Your task to perform on an android device: turn on priority inbox in the gmail app Image 0: 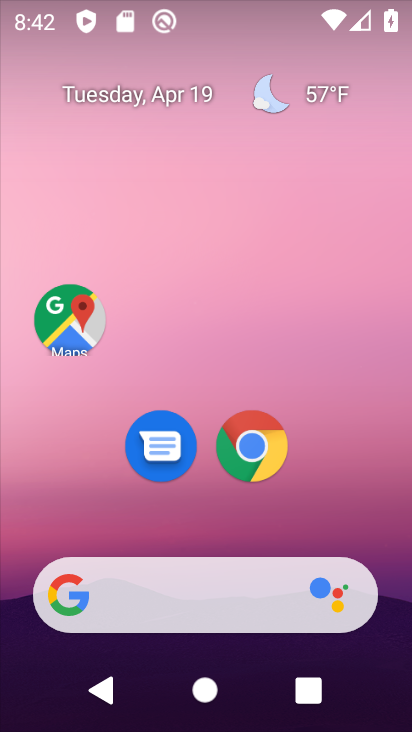
Step 0: drag from (329, 515) to (289, 91)
Your task to perform on an android device: turn on priority inbox in the gmail app Image 1: 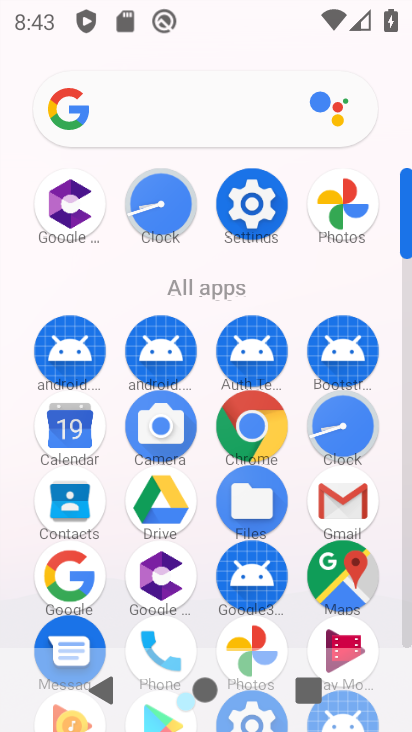
Step 1: click (349, 508)
Your task to perform on an android device: turn on priority inbox in the gmail app Image 2: 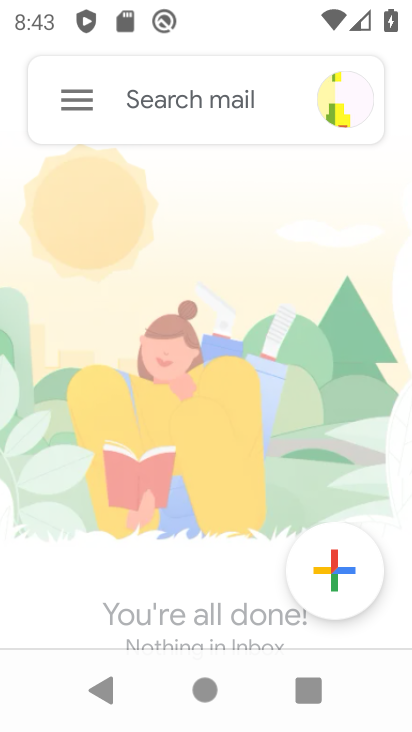
Step 2: click (74, 100)
Your task to perform on an android device: turn on priority inbox in the gmail app Image 3: 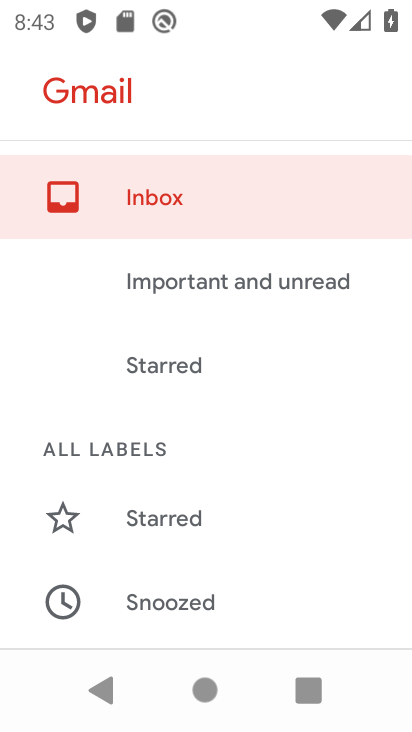
Step 3: drag from (151, 585) to (159, 204)
Your task to perform on an android device: turn on priority inbox in the gmail app Image 4: 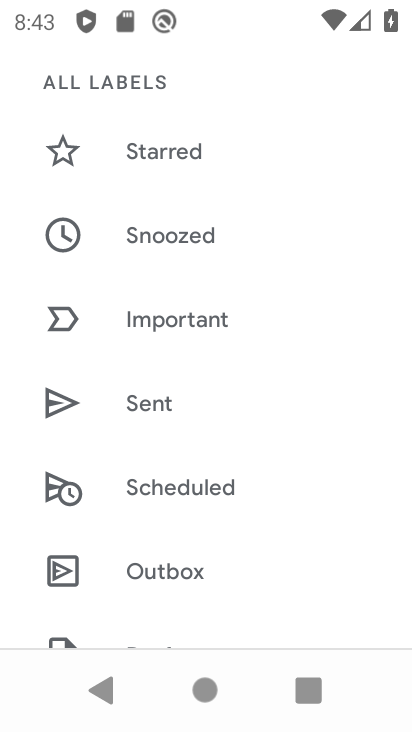
Step 4: drag from (116, 579) to (150, 193)
Your task to perform on an android device: turn on priority inbox in the gmail app Image 5: 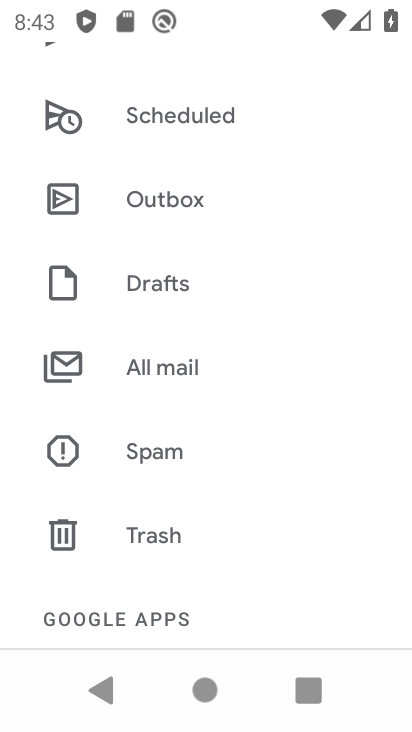
Step 5: drag from (252, 598) to (272, 149)
Your task to perform on an android device: turn on priority inbox in the gmail app Image 6: 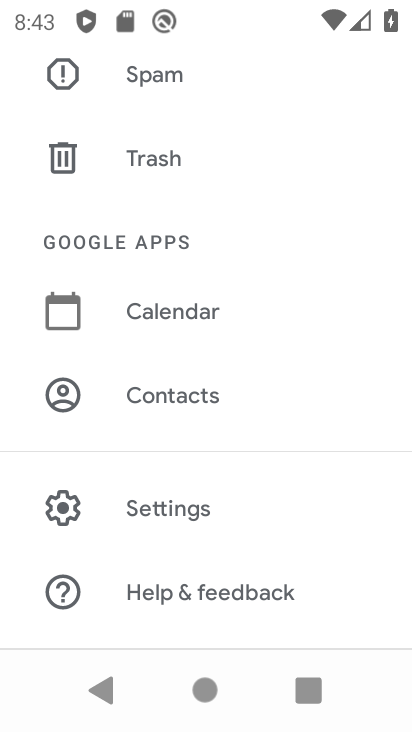
Step 6: click (137, 508)
Your task to perform on an android device: turn on priority inbox in the gmail app Image 7: 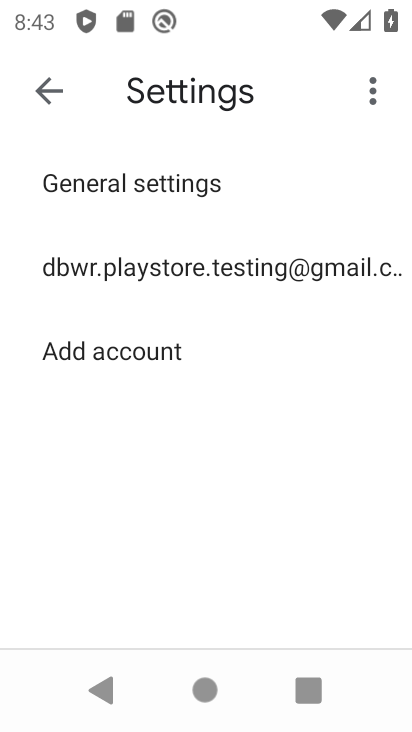
Step 7: click (181, 266)
Your task to perform on an android device: turn on priority inbox in the gmail app Image 8: 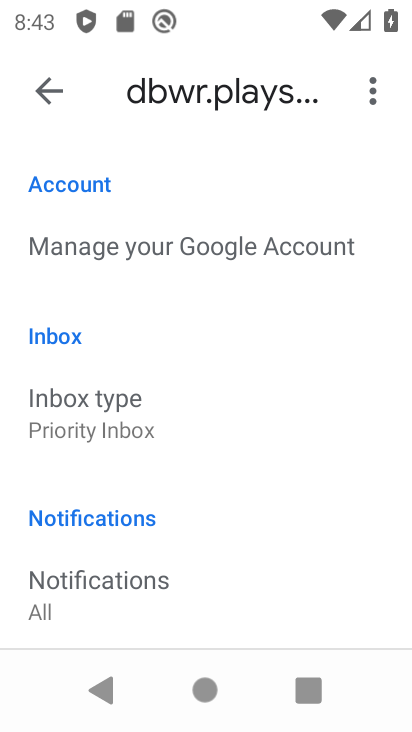
Step 8: click (91, 413)
Your task to perform on an android device: turn on priority inbox in the gmail app Image 9: 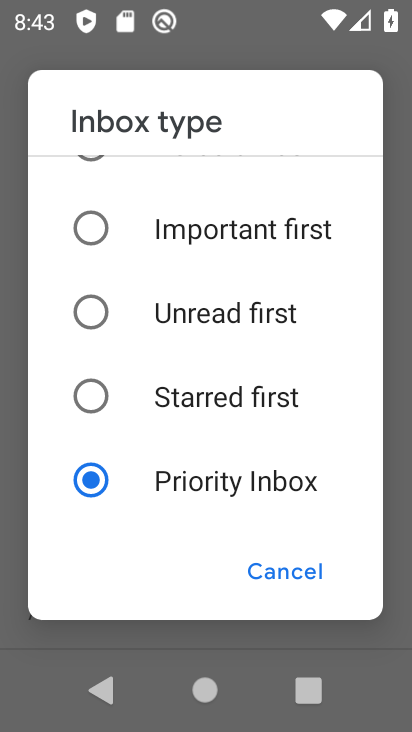
Step 9: task complete